Your task to perform on an android device: allow notifications from all sites in the chrome app Image 0: 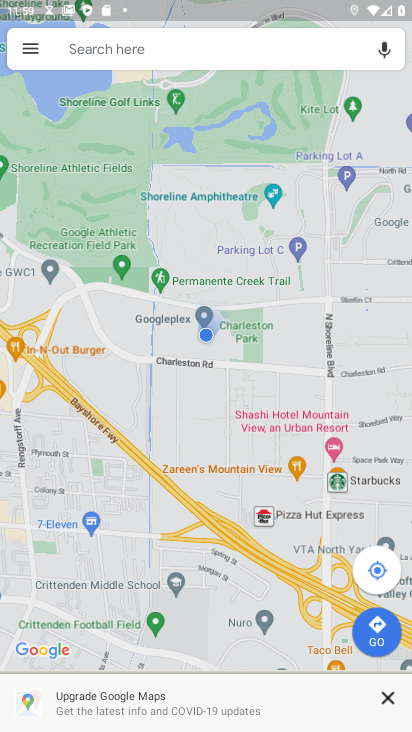
Step 0: press home button
Your task to perform on an android device: allow notifications from all sites in the chrome app Image 1: 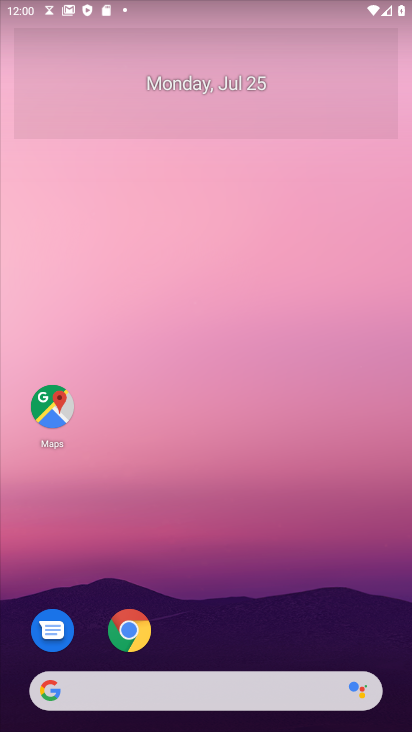
Step 1: press home button
Your task to perform on an android device: allow notifications from all sites in the chrome app Image 2: 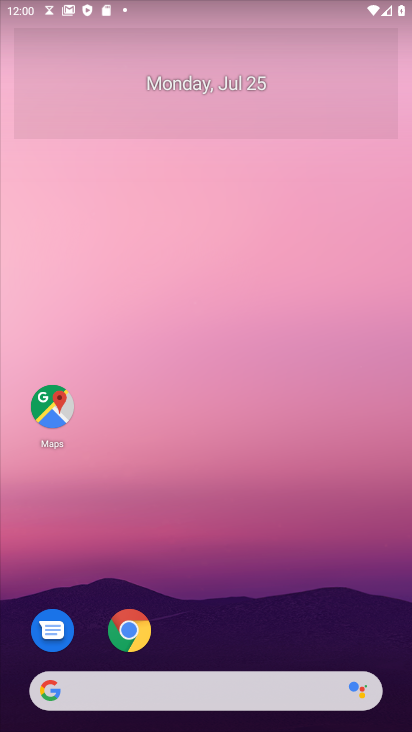
Step 2: click (130, 640)
Your task to perform on an android device: allow notifications from all sites in the chrome app Image 3: 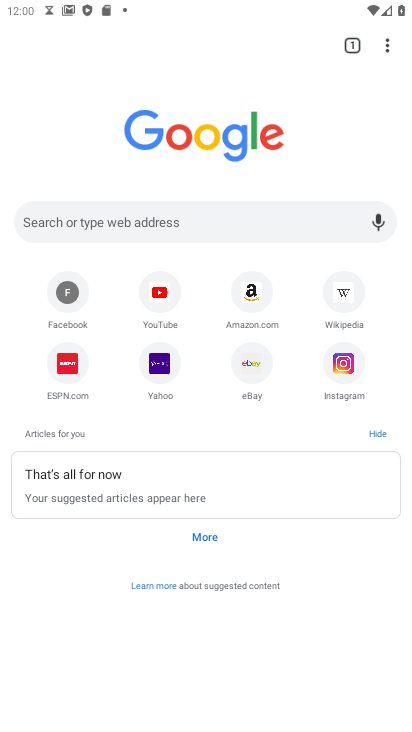
Step 3: drag from (382, 40) to (217, 380)
Your task to perform on an android device: allow notifications from all sites in the chrome app Image 4: 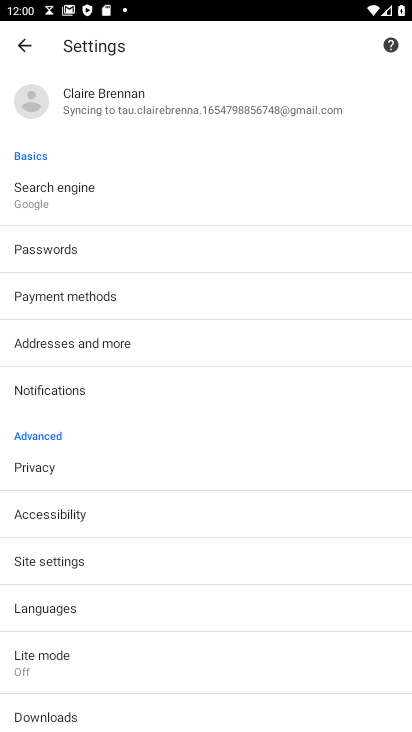
Step 4: click (52, 561)
Your task to perform on an android device: allow notifications from all sites in the chrome app Image 5: 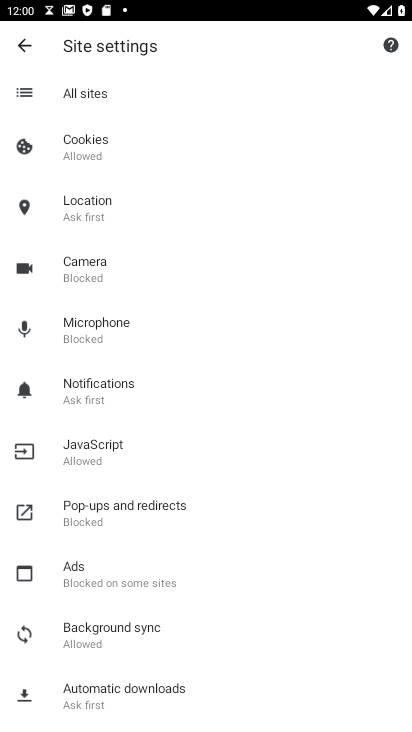
Step 5: click (93, 392)
Your task to perform on an android device: allow notifications from all sites in the chrome app Image 6: 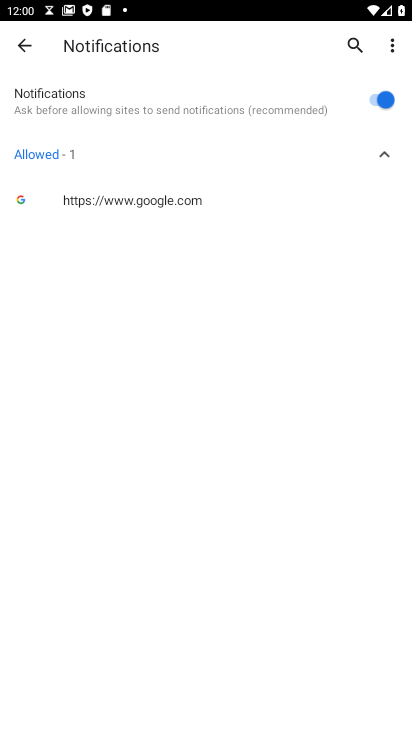
Step 6: task complete